Your task to perform on an android device: change alarm snooze length Image 0: 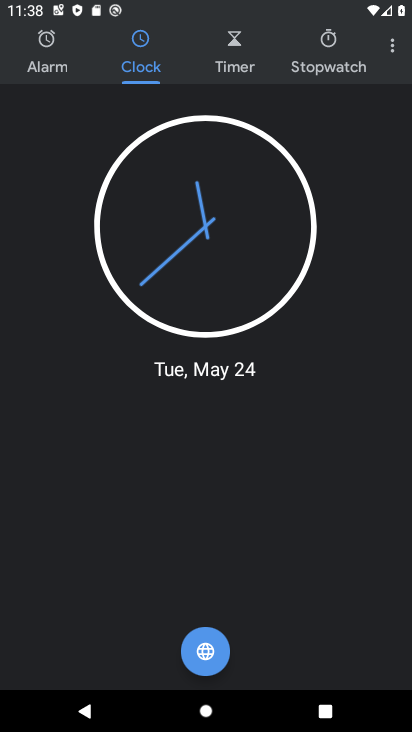
Step 0: press home button
Your task to perform on an android device: change alarm snooze length Image 1: 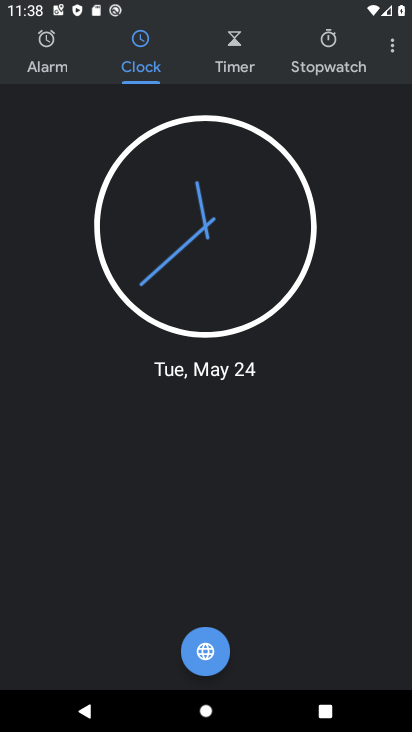
Step 1: press home button
Your task to perform on an android device: change alarm snooze length Image 2: 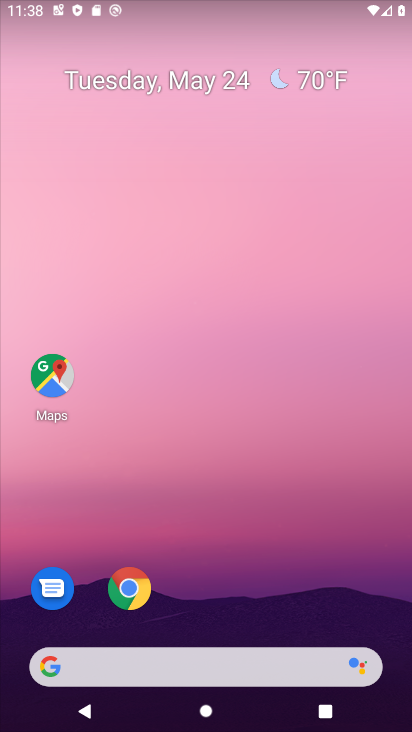
Step 2: drag from (226, 628) to (176, 31)
Your task to perform on an android device: change alarm snooze length Image 3: 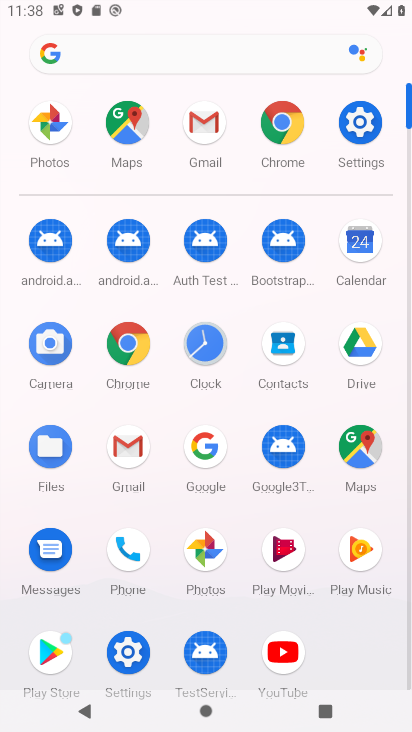
Step 3: click (201, 335)
Your task to perform on an android device: change alarm snooze length Image 4: 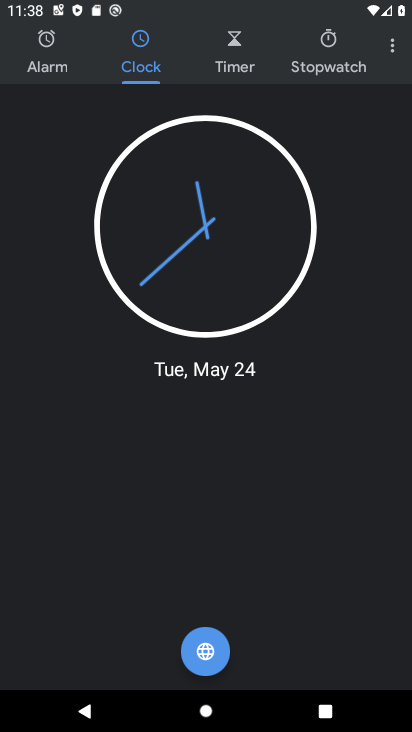
Step 4: click (388, 45)
Your task to perform on an android device: change alarm snooze length Image 5: 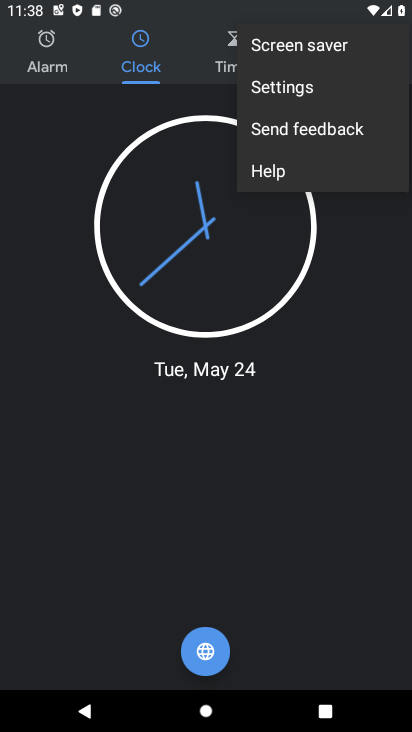
Step 5: click (321, 85)
Your task to perform on an android device: change alarm snooze length Image 6: 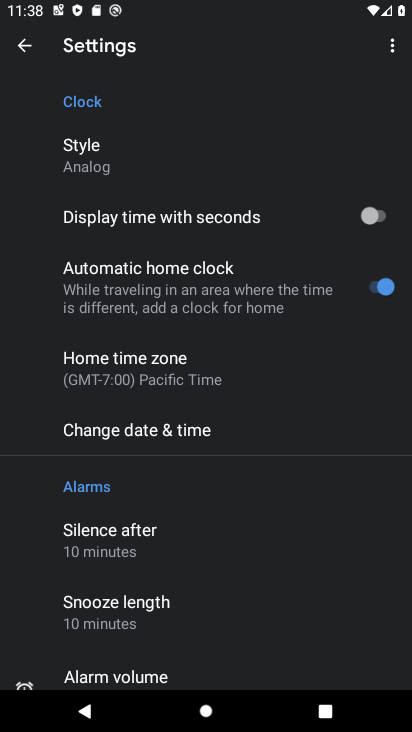
Step 6: click (180, 612)
Your task to perform on an android device: change alarm snooze length Image 7: 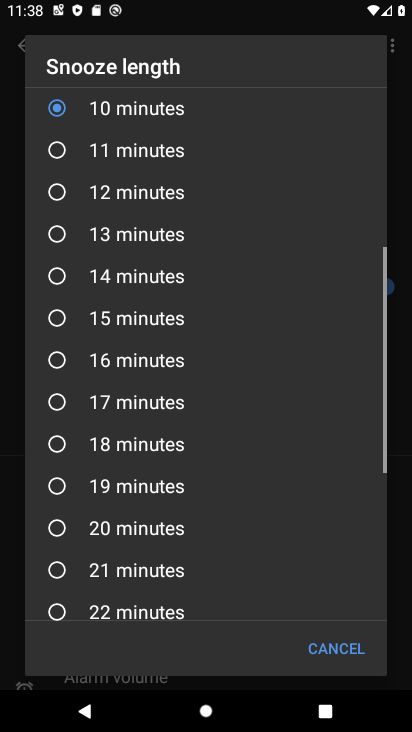
Step 7: drag from (106, 137) to (89, 555)
Your task to perform on an android device: change alarm snooze length Image 8: 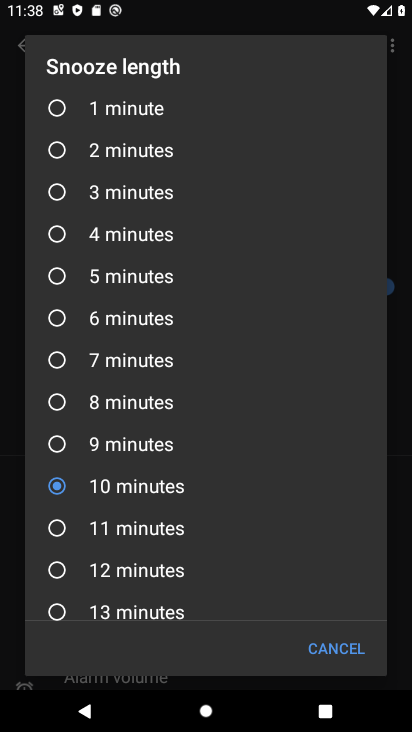
Step 8: click (61, 143)
Your task to perform on an android device: change alarm snooze length Image 9: 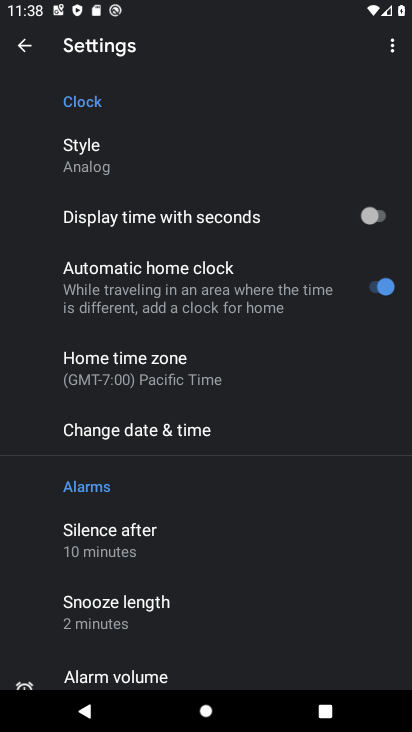
Step 9: task complete